Your task to perform on an android device: Add "usb-c to usb-a" to the cart on bestbuy Image 0: 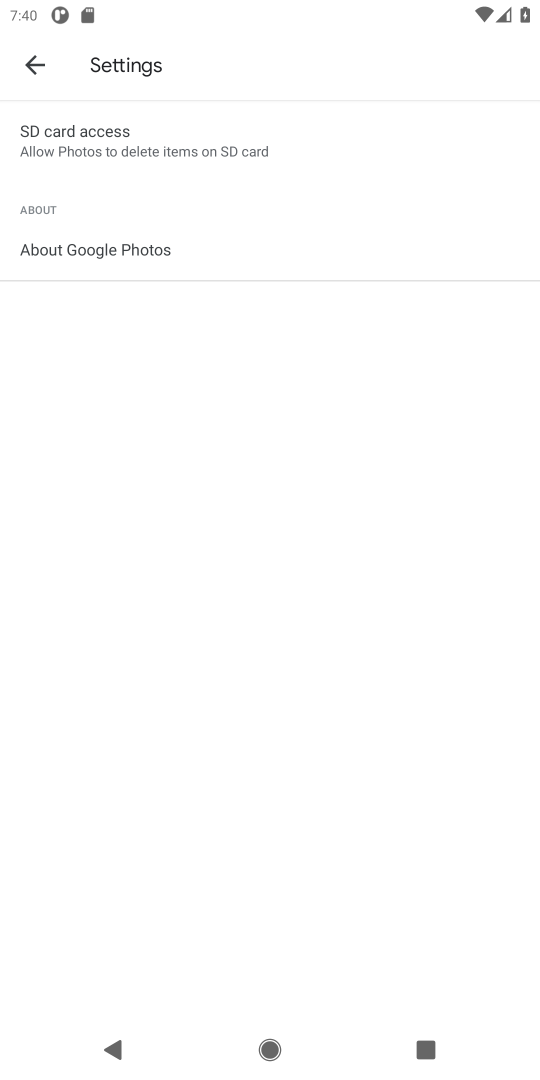
Step 0: press home button
Your task to perform on an android device: Add "usb-c to usb-a" to the cart on bestbuy Image 1: 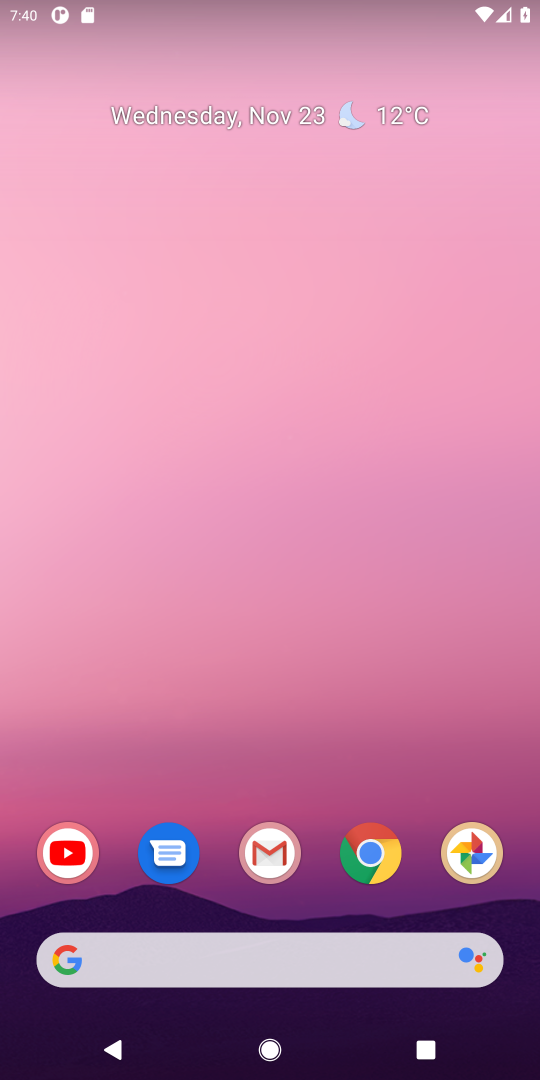
Step 1: click (368, 857)
Your task to perform on an android device: Add "usb-c to usb-a" to the cart on bestbuy Image 2: 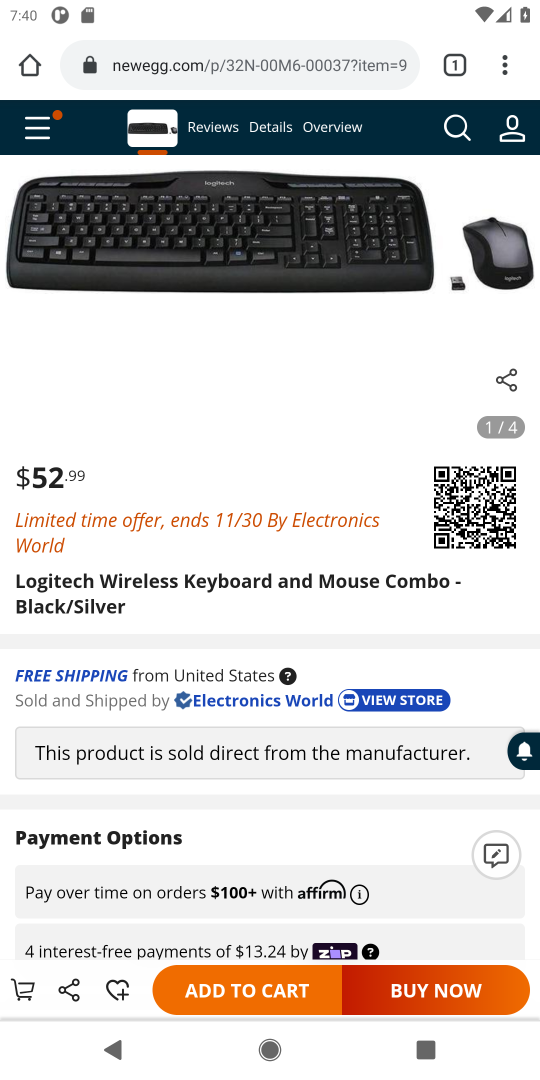
Step 2: click (211, 64)
Your task to perform on an android device: Add "usb-c to usb-a" to the cart on bestbuy Image 3: 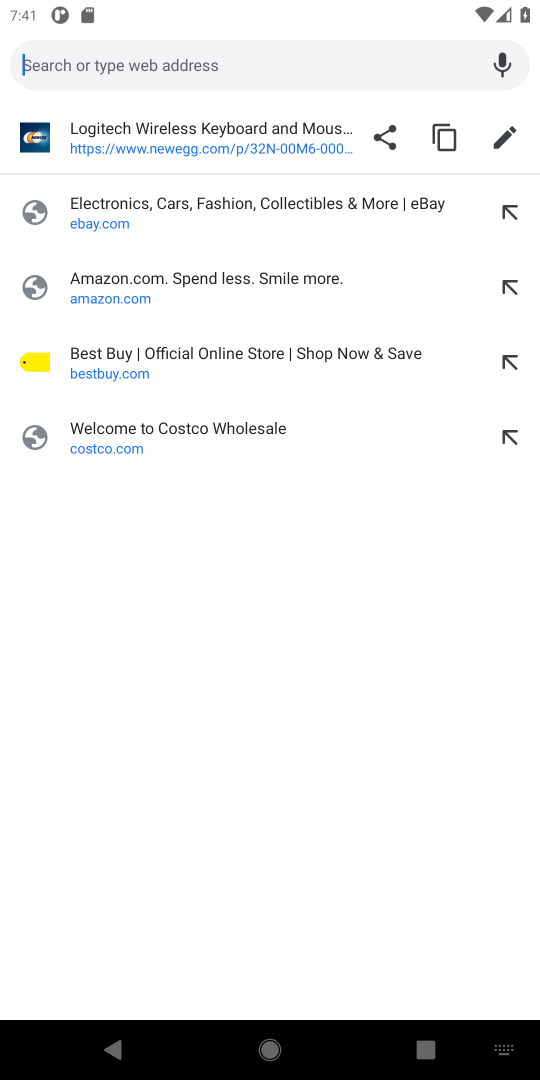
Step 3: click (95, 361)
Your task to perform on an android device: Add "usb-c to usb-a" to the cart on bestbuy Image 4: 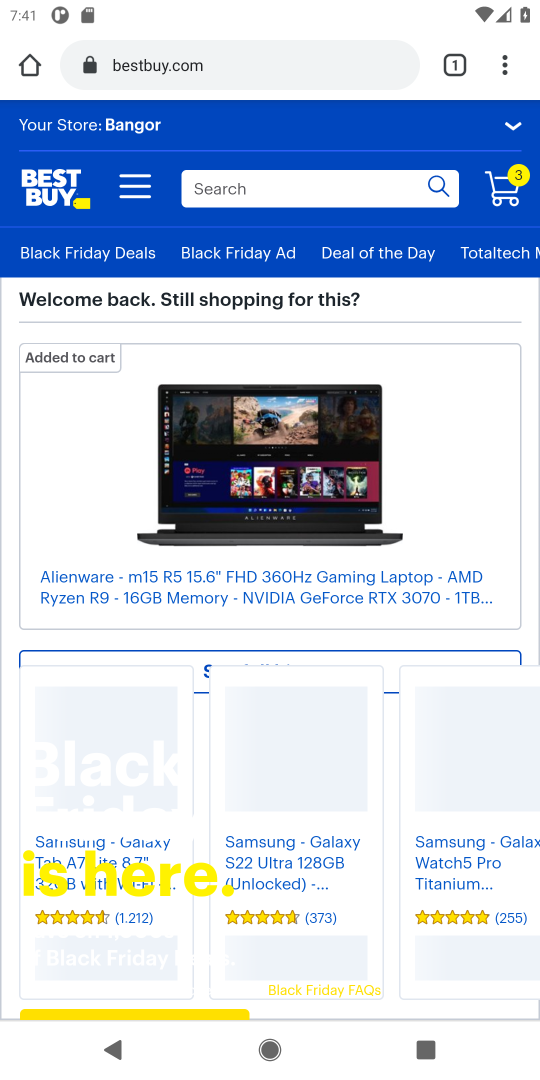
Step 4: click (208, 194)
Your task to perform on an android device: Add "usb-c to usb-a" to the cart on bestbuy Image 5: 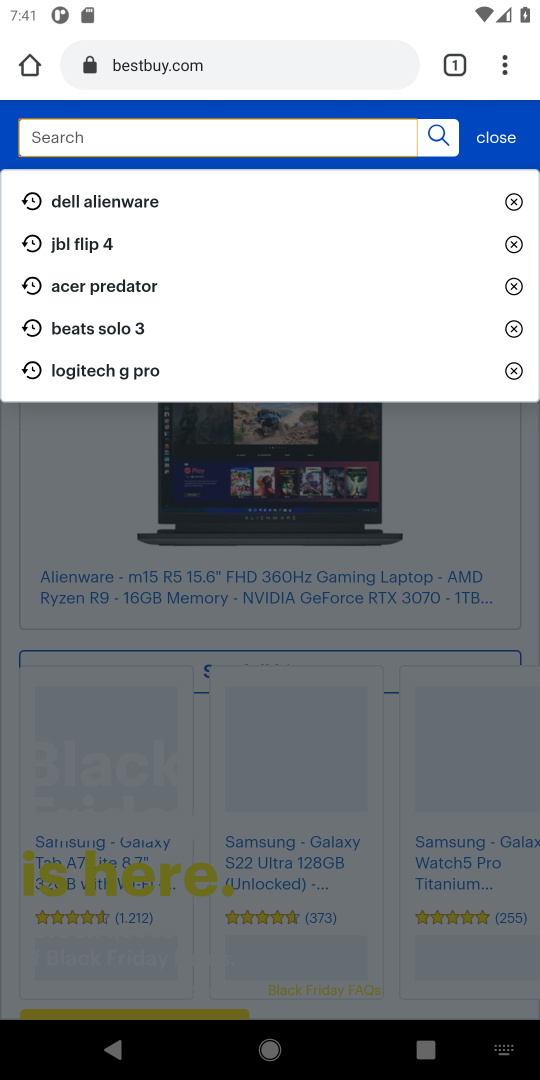
Step 5: type "usb-c to usb-a"
Your task to perform on an android device: Add "usb-c to usb-a" to the cart on bestbuy Image 6: 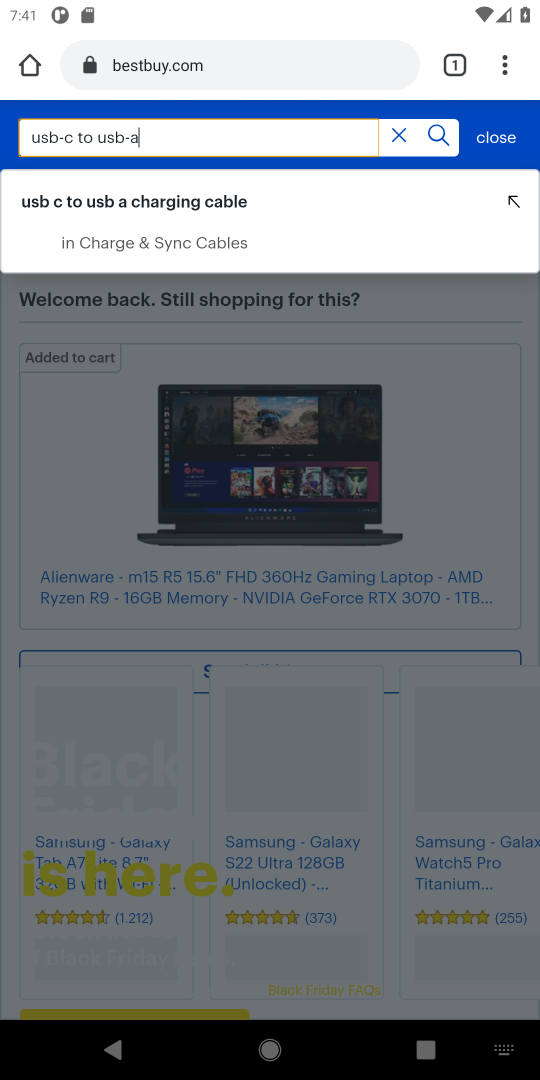
Step 6: click (158, 208)
Your task to perform on an android device: Add "usb-c to usb-a" to the cart on bestbuy Image 7: 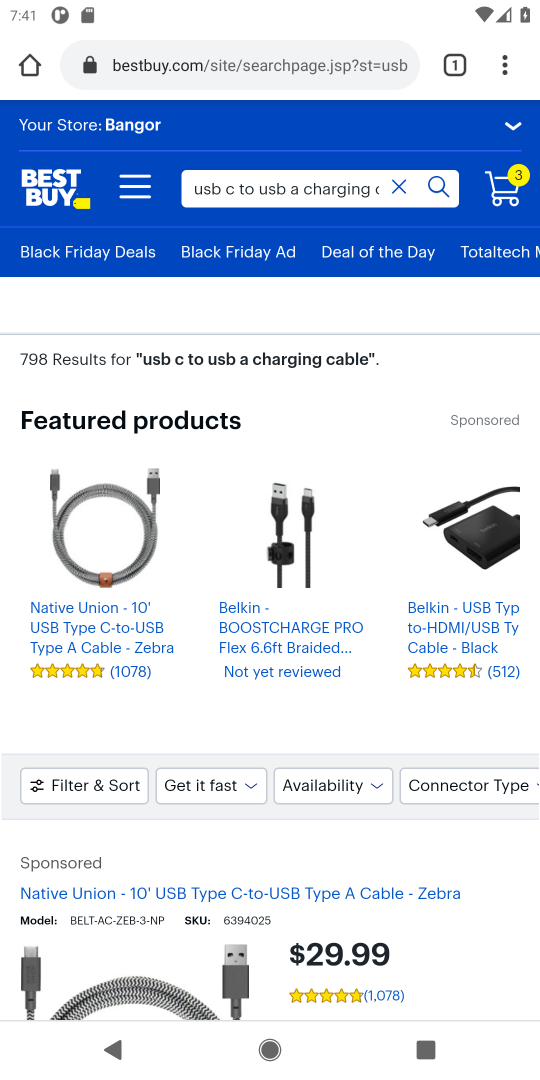
Step 7: drag from (186, 720) to (167, 245)
Your task to perform on an android device: Add "usb-c to usb-a" to the cart on bestbuy Image 8: 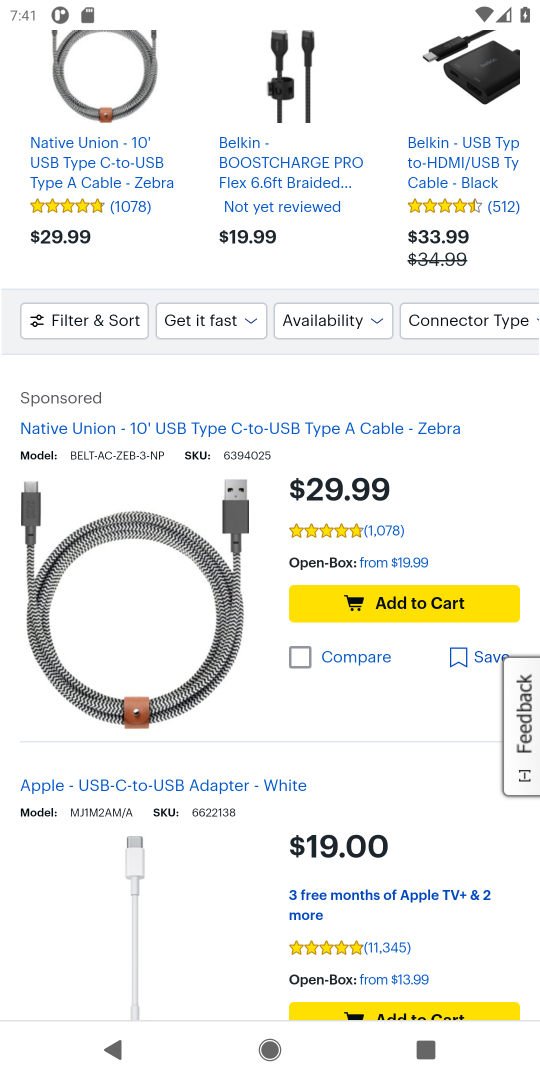
Step 8: click (358, 598)
Your task to perform on an android device: Add "usb-c to usb-a" to the cart on bestbuy Image 9: 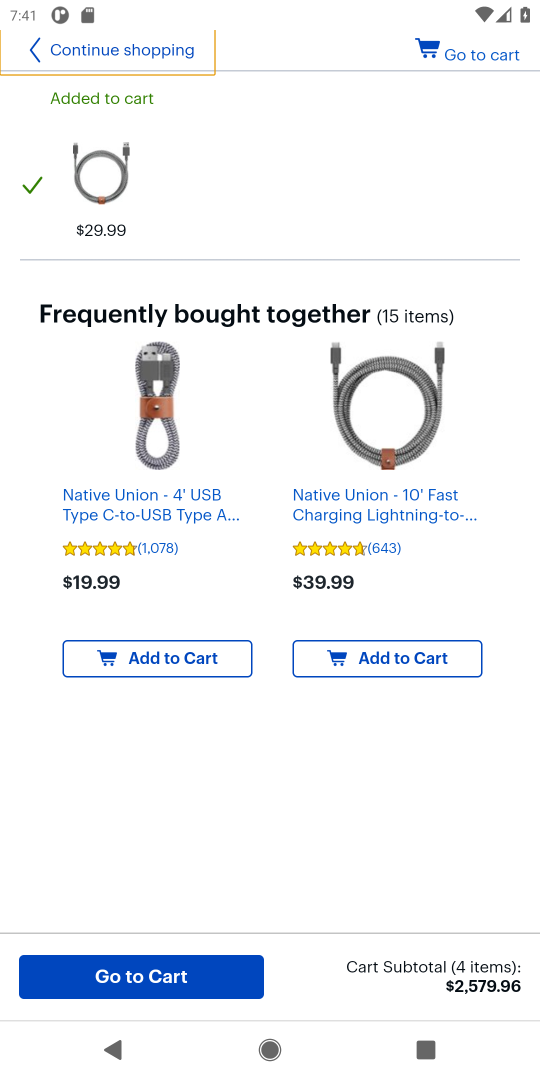
Step 9: task complete